Your task to perform on an android device: Open calendar and show me the first week of next month Image 0: 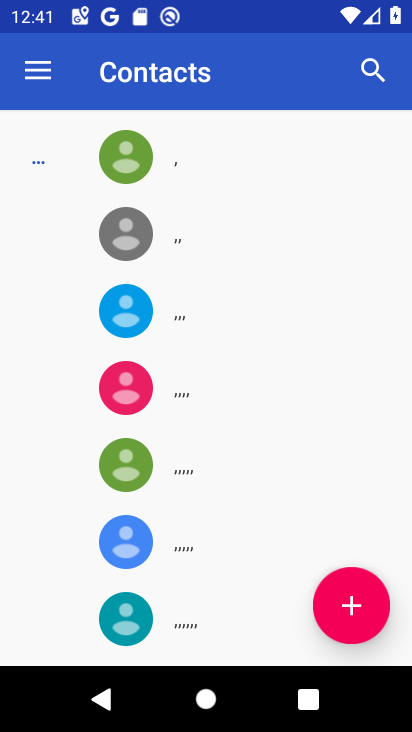
Step 0: press home button
Your task to perform on an android device: Open calendar and show me the first week of next month Image 1: 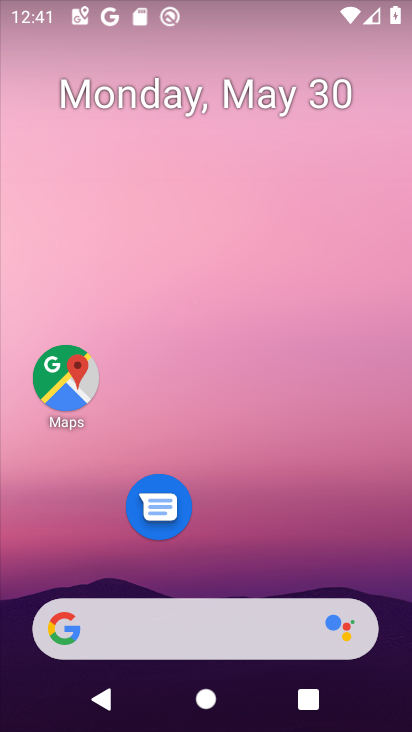
Step 1: drag from (276, 549) to (290, 92)
Your task to perform on an android device: Open calendar and show me the first week of next month Image 2: 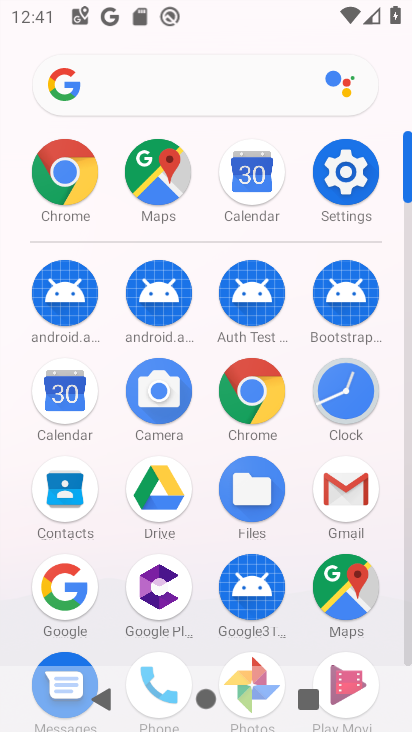
Step 2: click (53, 390)
Your task to perform on an android device: Open calendar and show me the first week of next month Image 3: 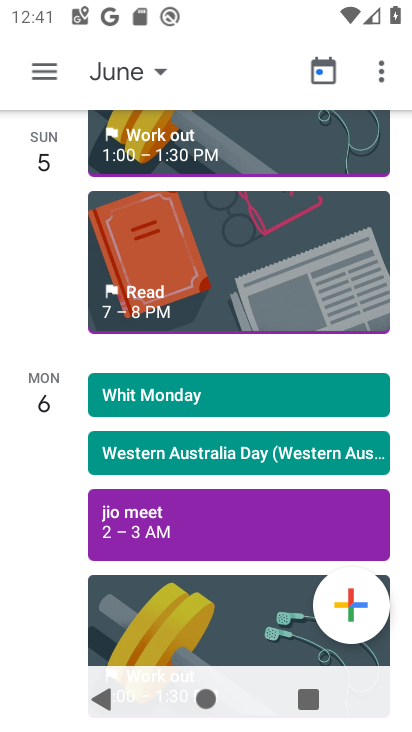
Step 3: click (154, 74)
Your task to perform on an android device: Open calendar and show me the first week of next month Image 4: 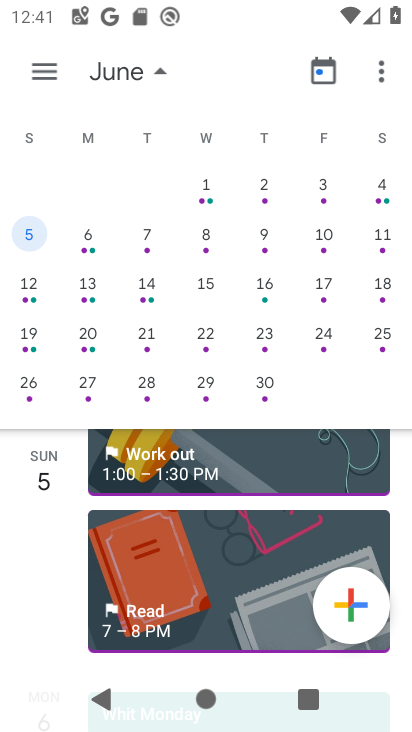
Step 4: click (319, 188)
Your task to perform on an android device: Open calendar and show me the first week of next month Image 5: 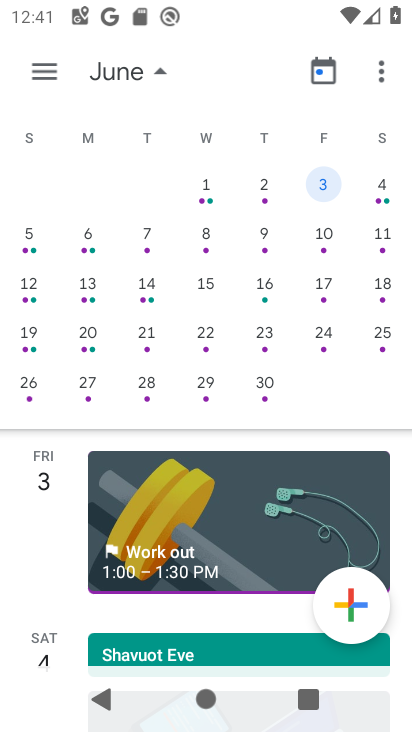
Step 5: task complete